Your task to perform on an android device: What's the weather going to be tomorrow? Image 0: 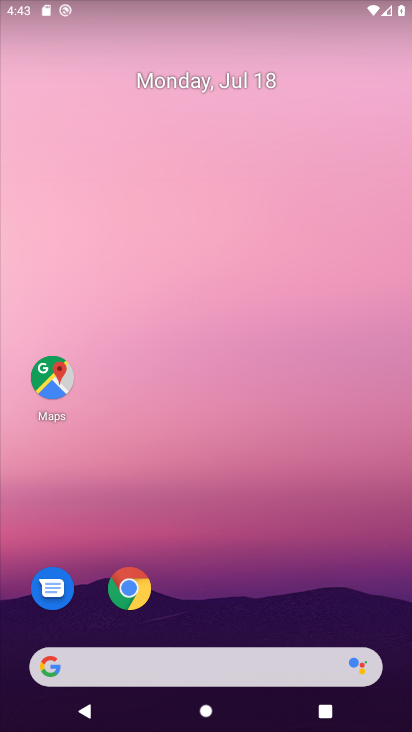
Step 0: drag from (332, 657) to (284, 153)
Your task to perform on an android device: What's the weather going to be tomorrow? Image 1: 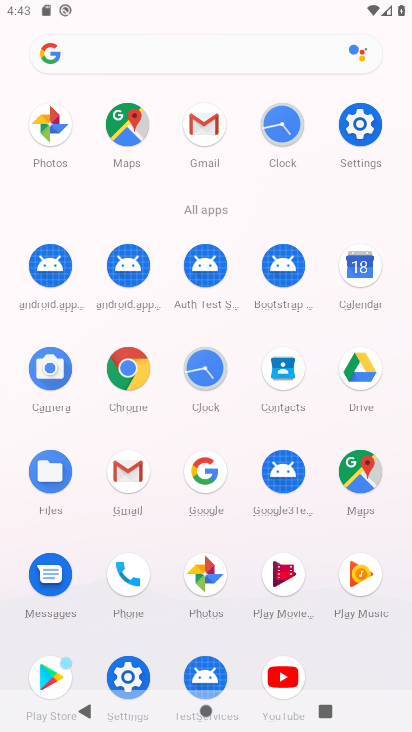
Step 1: click (135, 372)
Your task to perform on an android device: What's the weather going to be tomorrow? Image 2: 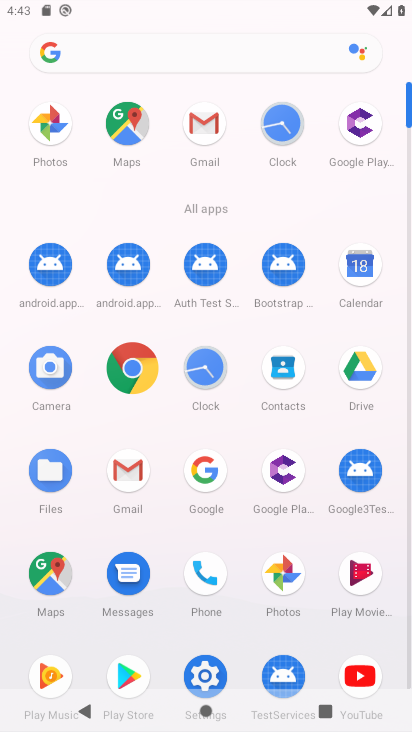
Step 2: click (136, 367)
Your task to perform on an android device: What's the weather going to be tomorrow? Image 3: 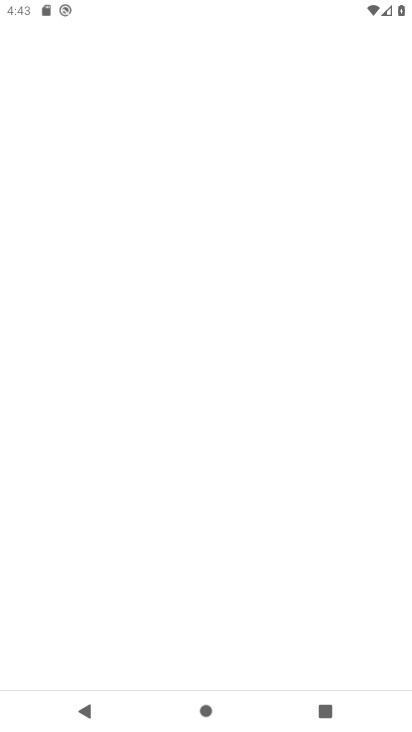
Step 3: click (135, 372)
Your task to perform on an android device: What's the weather going to be tomorrow? Image 4: 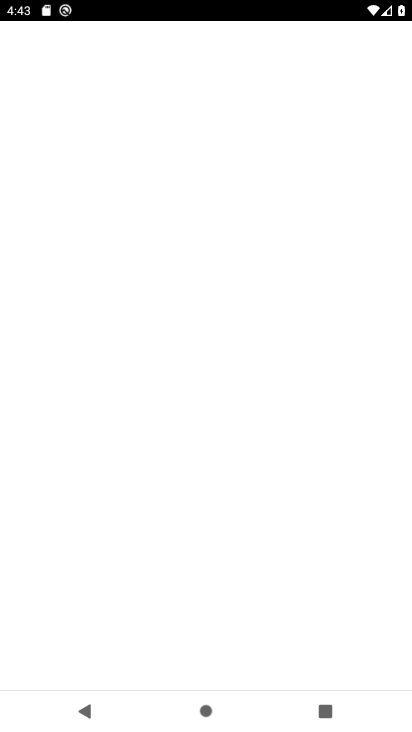
Step 4: click (129, 367)
Your task to perform on an android device: What's the weather going to be tomorrow? Image 5: 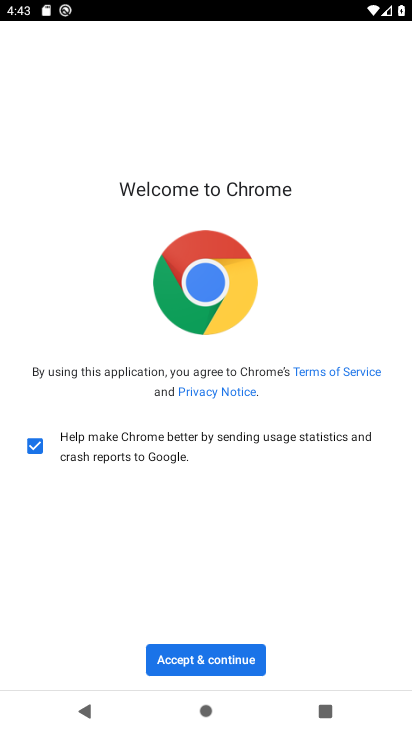
Step 5: click (223, 644)
Your task to perform on an android device: What's the weather going to be tomorrow? Image 6: 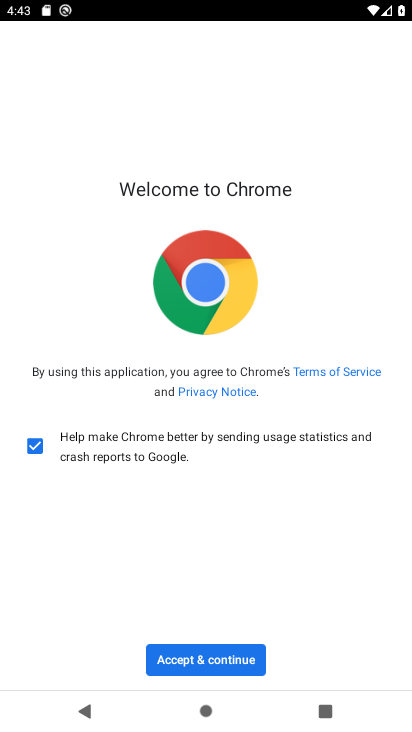
Step 6: click (228, 662)
Your task to perform on an android device: What's the weather going to be tomorrow? Image 7: 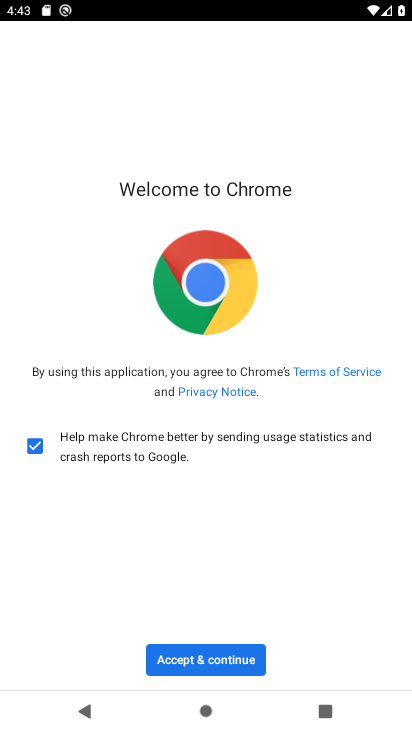
Step 7: click (228, 662)
Your task to perform on an android device: What's the weather going to be tomorrow? Image 8: 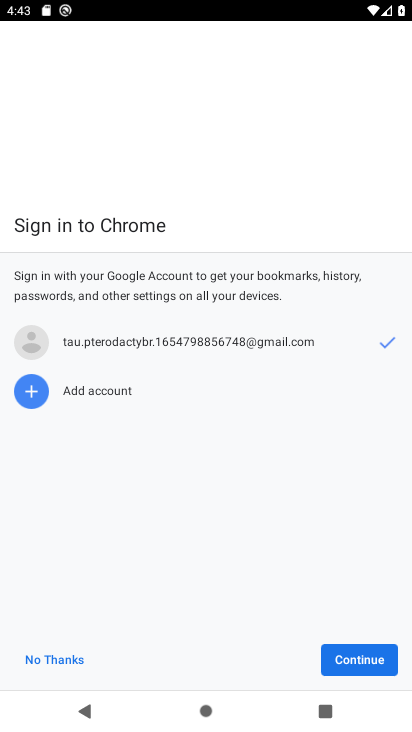
Step 8: click (228, 662)
Your task to perform on an android device: What's the weather going to be tomorrow? Image 9: 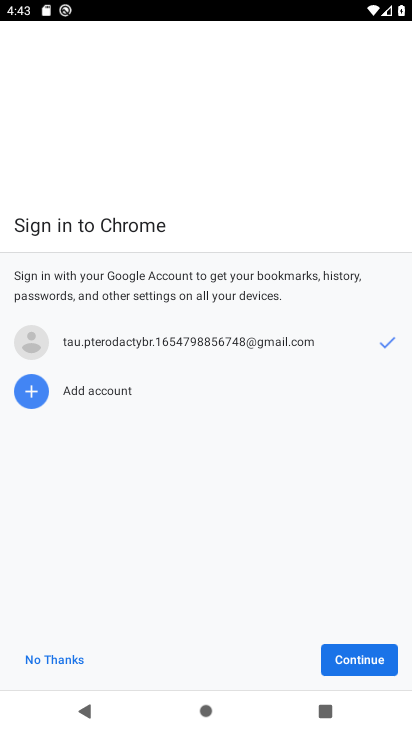
Step 9: click (231, 653)
Your task to perform on an android device: What's the weather going to be tomorrow? Image 10: 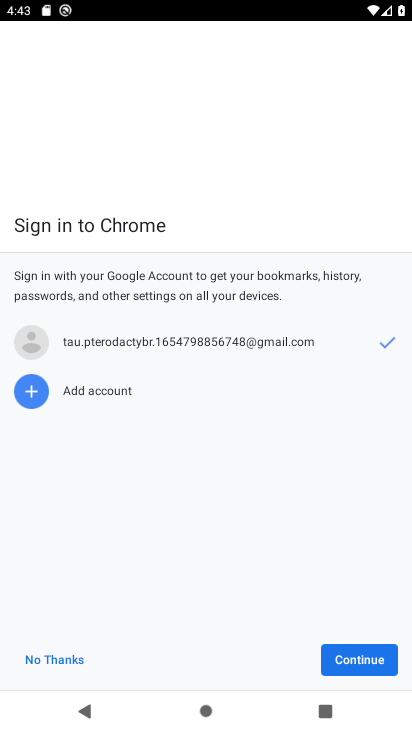
Step 10: click (234, 661)
Your task to perform on an android device: What's the weather going to be tomorrow? Image 11: 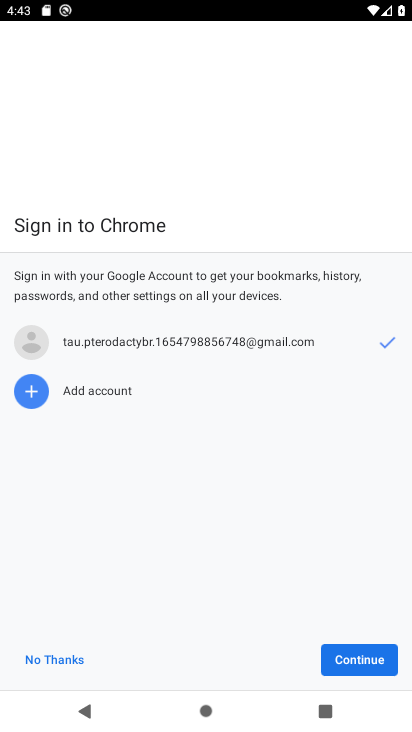
Step 11: click (379, 667)
Your task to perform on an android device: What's the weather going to be tomorrow? Image 12: 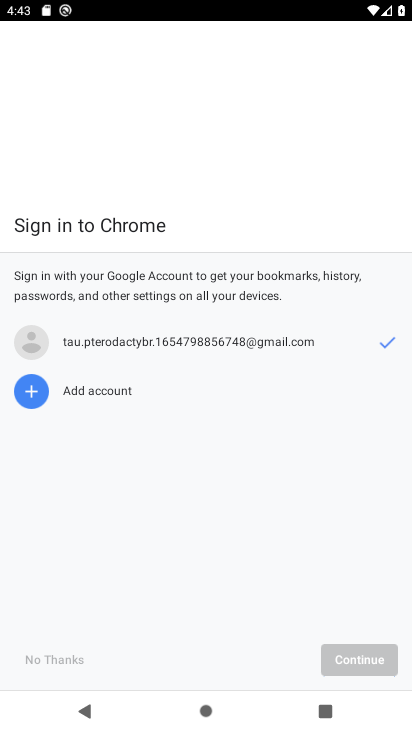
Step 12: click (372, 658)
Your task to perform on an android device: What's the weather going to be tomorrow? Image 13: 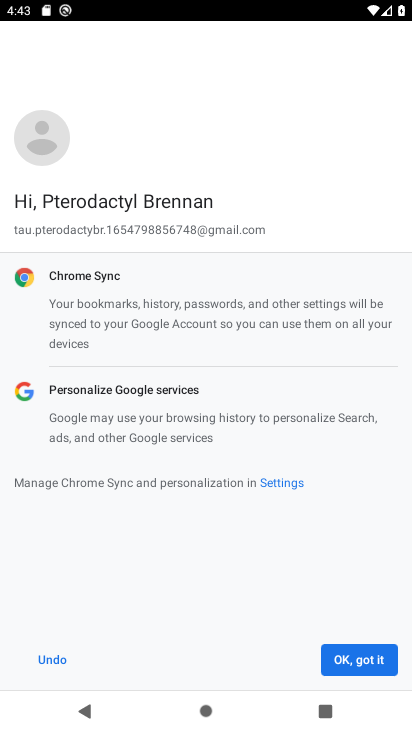
Step 13: click (365, 640)
Your task to perform on an android device: What's the weather going to be tomorrow? Image 14: 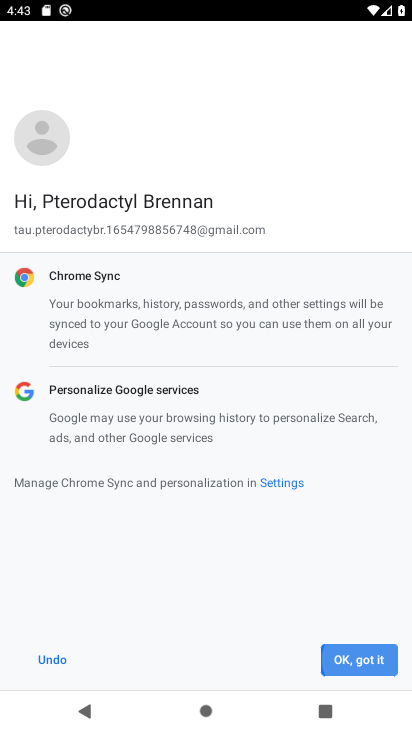
Step 14: click (358, 627)
Your task to perform on an android device: What's the weather going to be tomorrow? Image 15: 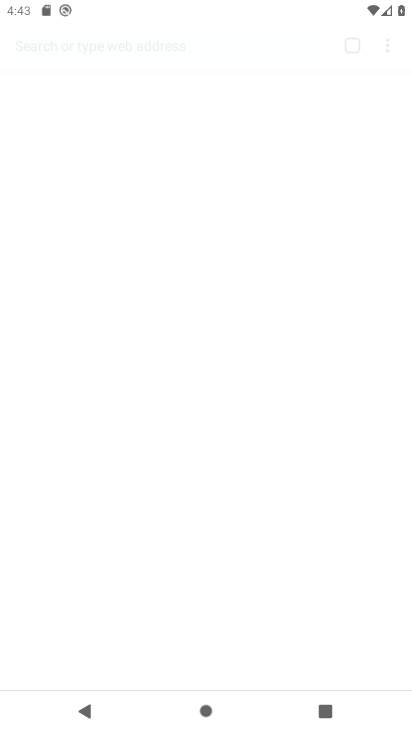
Step 15: click (381, 665)
Your task to perform on an android device: What's the weather going to be tomorrow? Image 16: 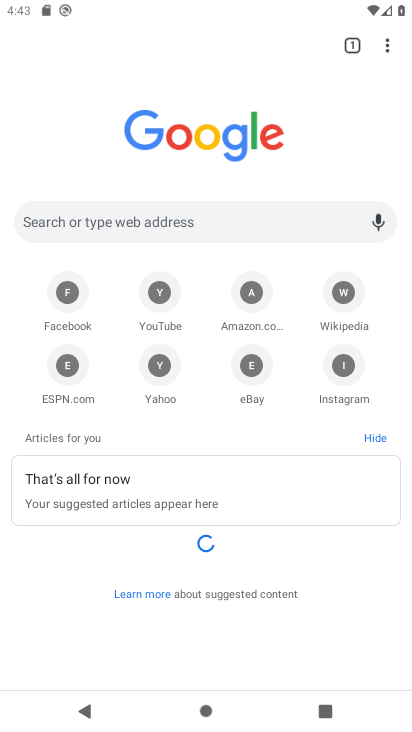
Step 16: click (48, 202)
Your task to perform on an android device: What's the weather going to be tomorrow? Image 17: 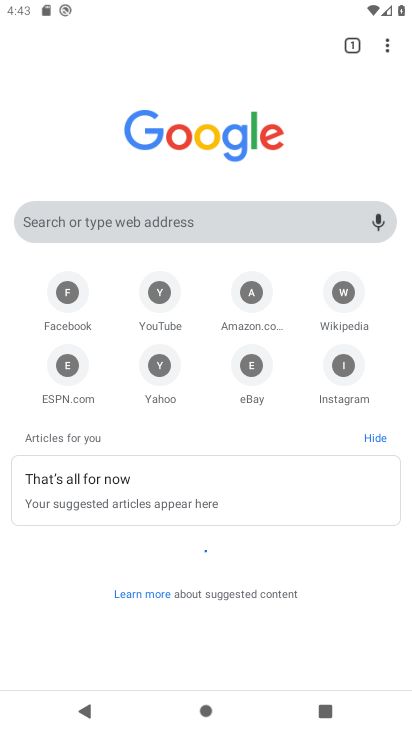
Step 17: click (64, 224)
Your task to perform on an android device: What's the weather going to be tomorrow? Image 18: 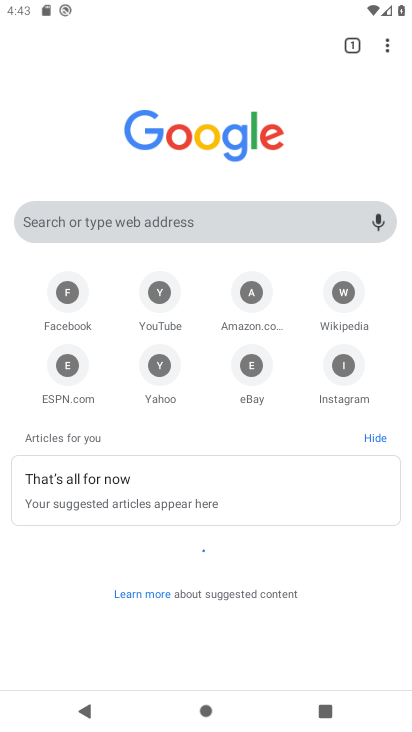
Step 18: click (67, 219)
Your task to perform on an android device: What's the weather going to be tomorrow? Image 19: 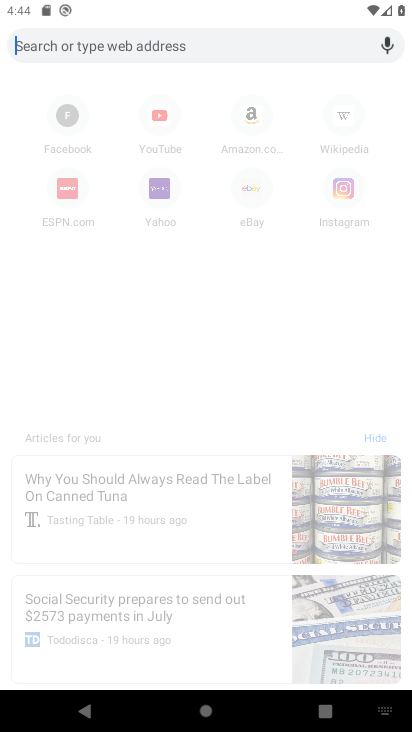
Step 19: type "weather today?"
Your task to perform on an android device: What's the weather going to be tomorrow? Image 20: 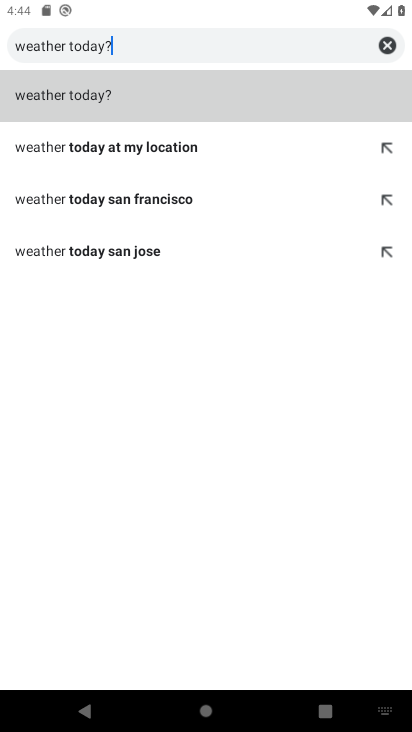
Step 20: click (82, 92)
Your task to perform on an android device: What's the weather going to be tomorrow? Image 21: 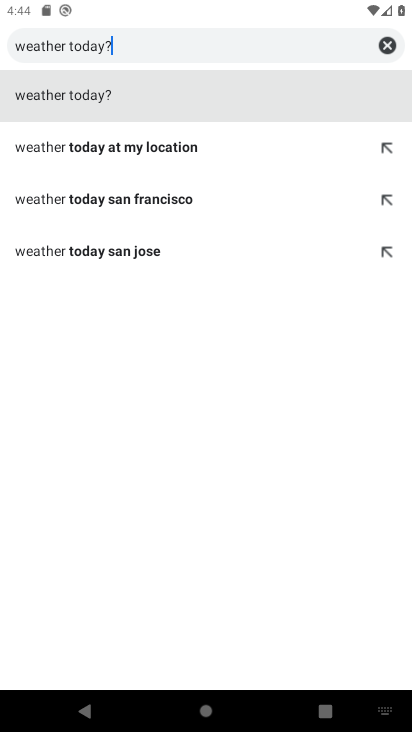
Step 21: click (82, 91)
Your task to perform on an android device: What's the weather going to be tomorrow? Image 22: 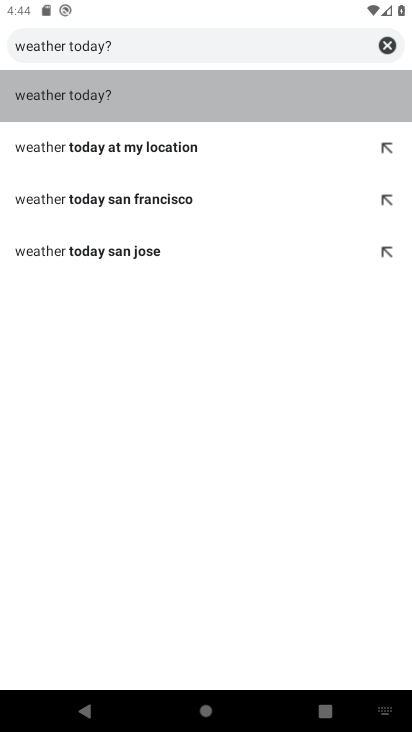
Step 22: click (82, 91)
Your task to perform on an android device: What's the weather going to be tomorrow? Image 23: 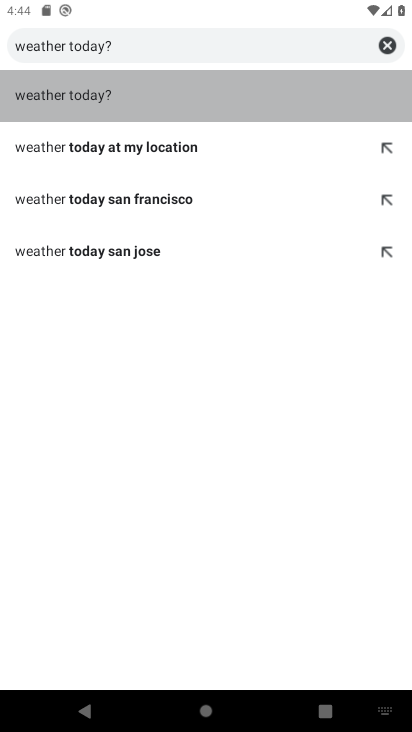
Step 23: click (82, 91)
Your task to perform on an android device: What's the weather going to be tomorrow? Image 24: 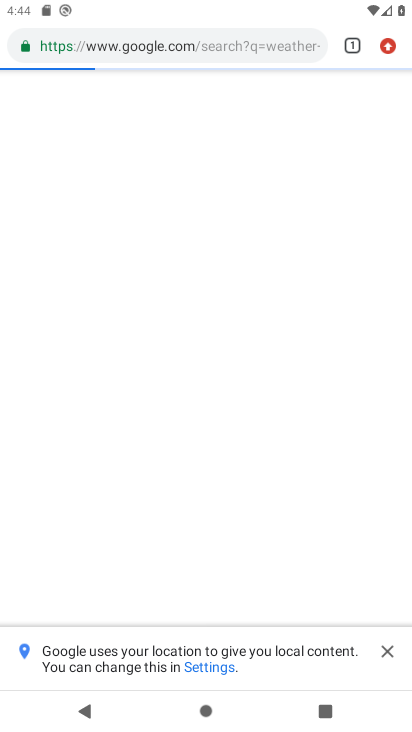
Step 24: task complete